Your task to perform on an android device: turn off data saver in the chrome app Image 0: 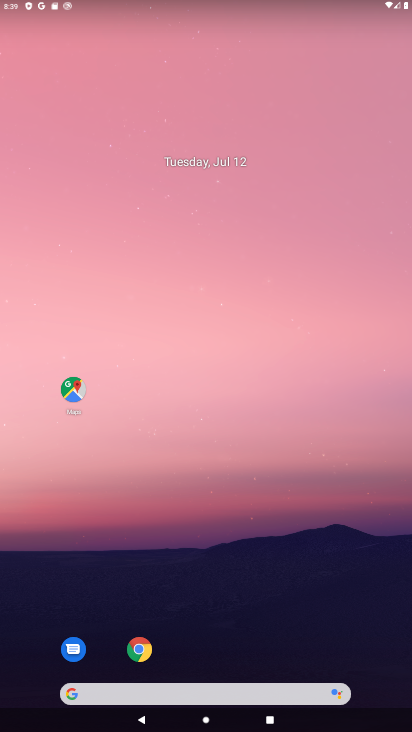
Step 0: click (129, 650)
Your task to perform on an android device: turn off data saver in the chrome app Image 1: 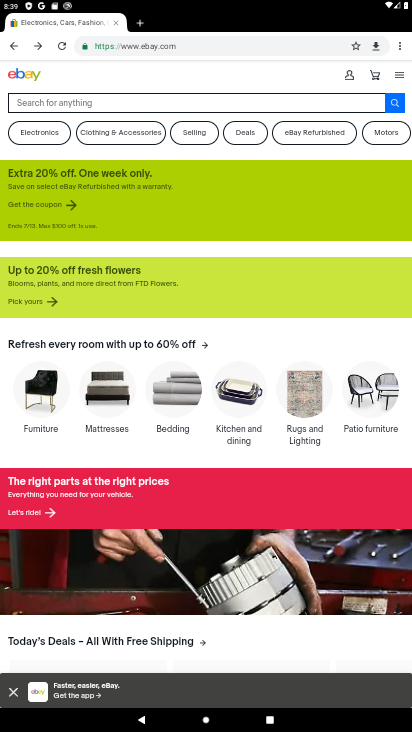
Step 1: click (399, 49)
Your task to perform on an android device: turn off data saver in the chrome app Image 2: 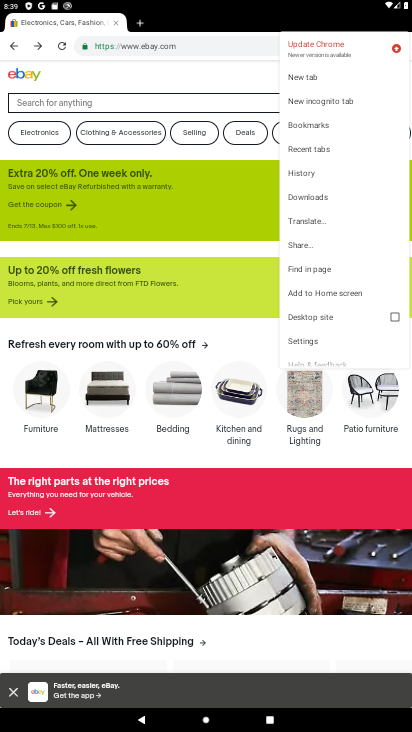
Step 2: click (315, 341)
Your task to perform on an android device: turn off data saver in the chrome app Image 3: 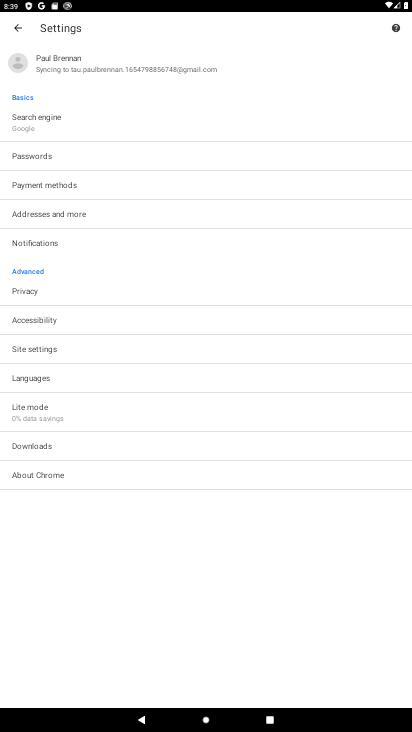
Step 3: click (200, 406)
Your task to perform on an android device: turn off data saver in the chrome app Image 4: 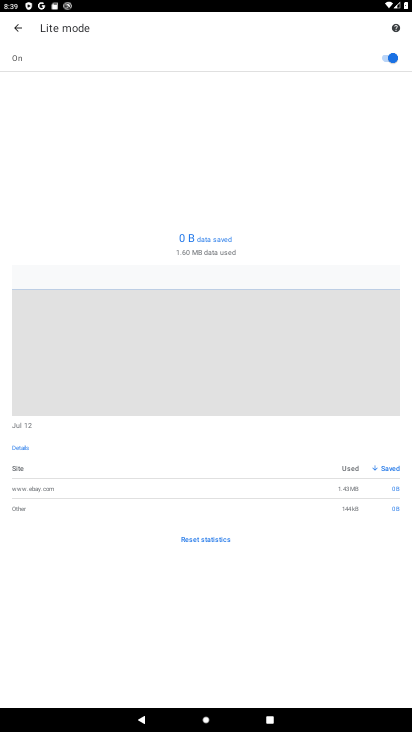
Step 4: click (396, 66)
Your task to perform on an android device: turn off data saver in the chrome app Image 5: 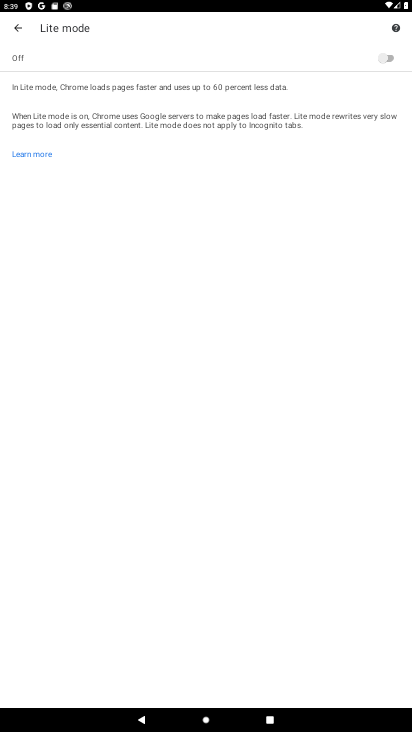
Step 5: task complete